Your task to perform on an android device: What's the weather today? Image 0: 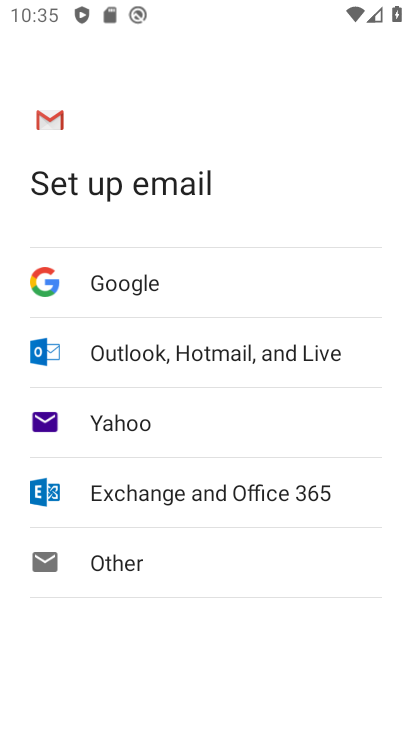
Step 0: press home button
Your task to perform on an android device: What's the weather today? Image 1: 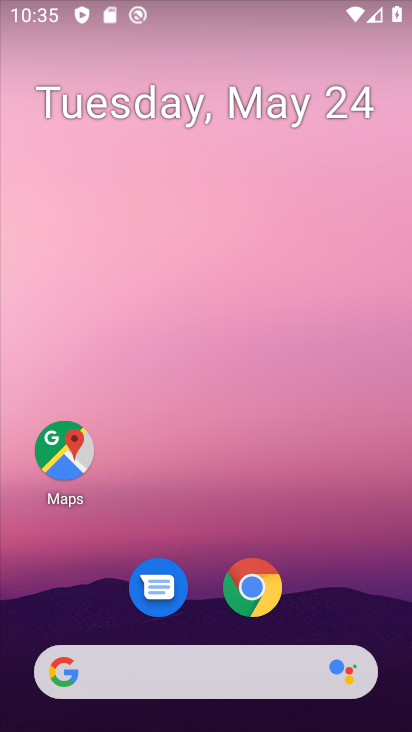
Step 1: click (249, 593)
Your task to perform on an android device: What's the weather today? Image 2: 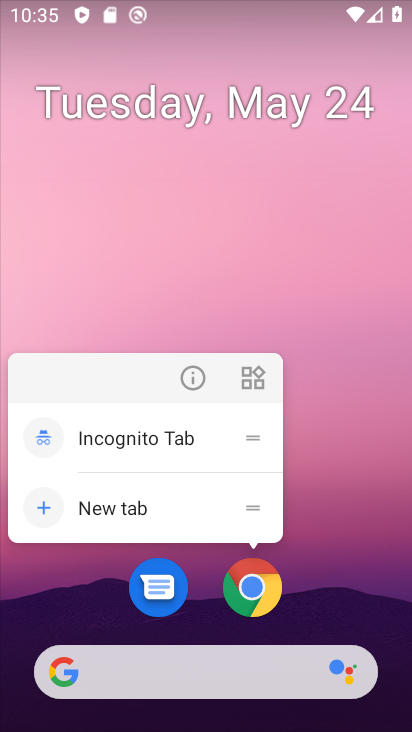
Step 2: click (249, 593)
Your task to perform on an android device: What's the weather today? Image 3: 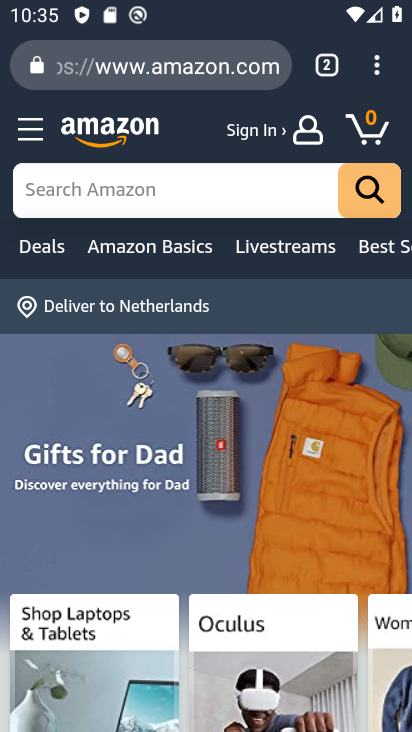
Step 3: click (109, 66)
Your task to perform on an android device: What's the weather today? Image 4: 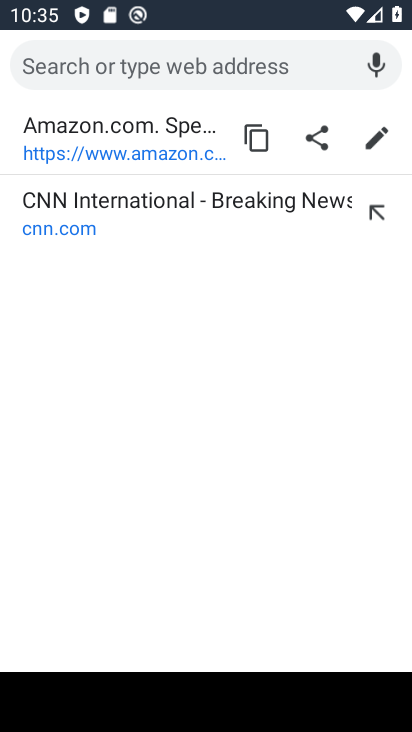
Step 4: type "What's the weather today?"
Your task to perform on an android device: What's the weather today? Image 5: 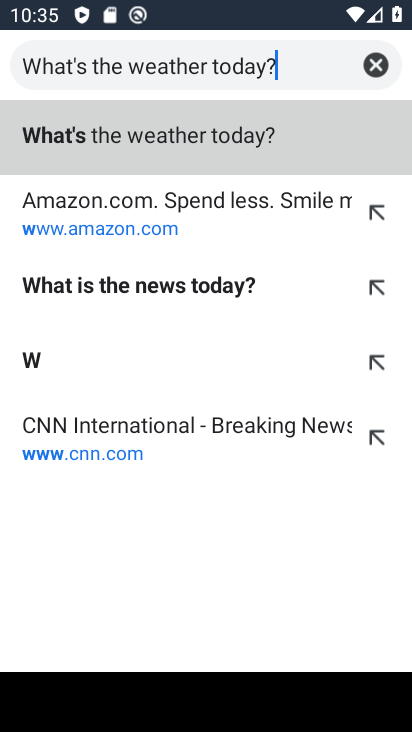
Step 5: type ""
Your task to perform on an android device: What's the weather today? Image 6: 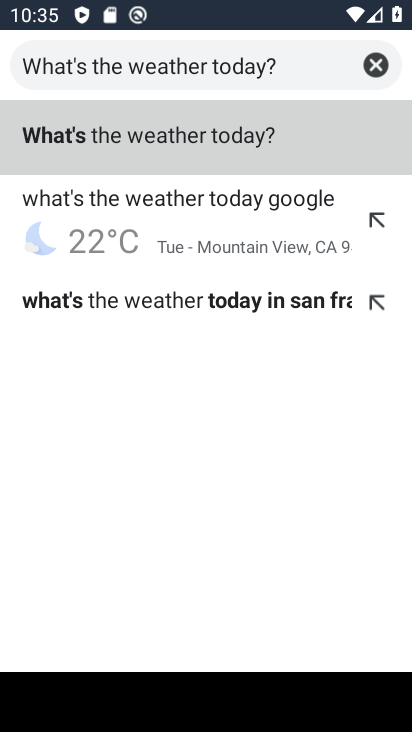
Step 6: click (174, 137)
Your task to perform on an android device: What's the weather today? Image 7: 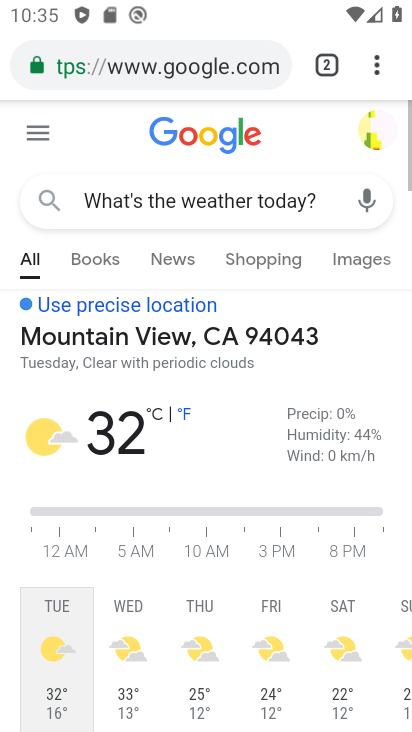
Step 7: task complete